Your task to perform on an android device: delete a single message in the gmail app Image 0: 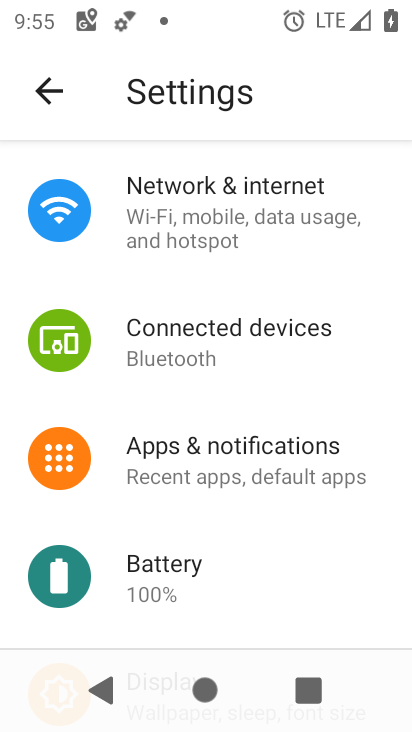
Step 0: press home button
Your task to perform on an android device: delete a single message in the gmail app Image 1: 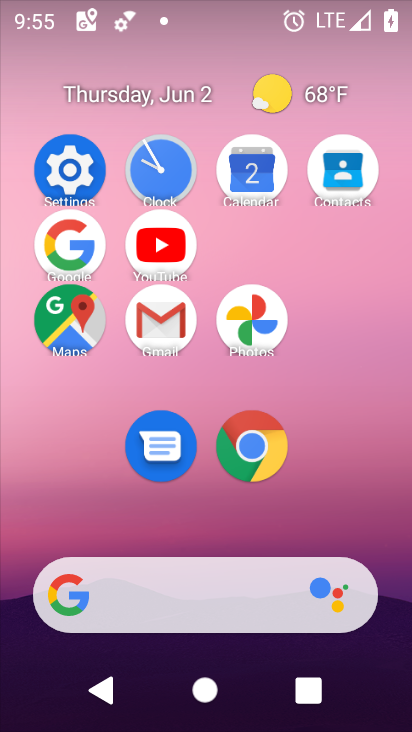
Step 1: click (164, 316)
Your task to perform on an android device: delete a single message in the gmail app Image 2: 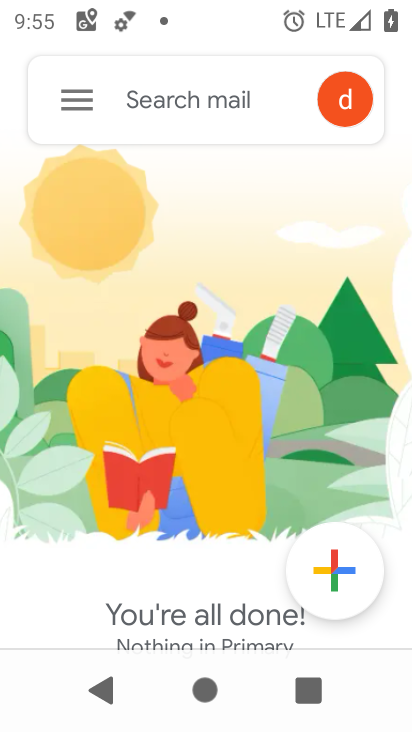
Step 2: click (67, 114)
Your task to perform on an android device: delete a single message in the gmail app Image 3: 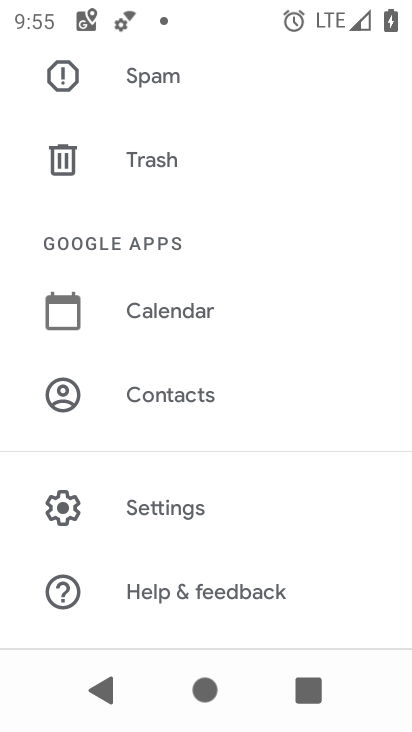
Step 3: drag from (208, 109) to (271, 510)
Your task to perform on an android device: delete a single message in the gmail app Image 4: 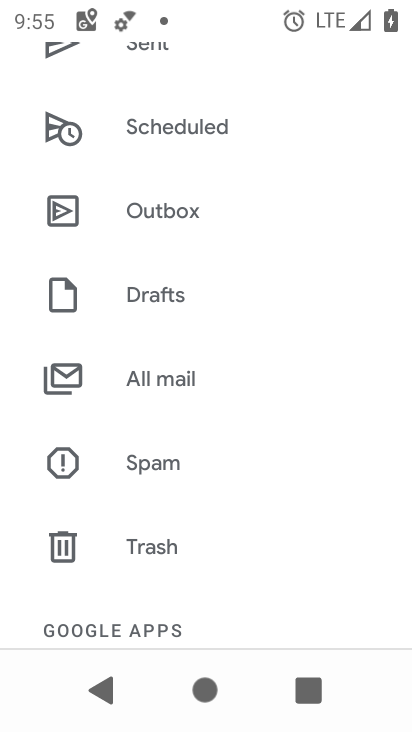
Step 4: drag from (281, 217) to (290, 555)
Your task to perform on an android device: delete a single message in the gmail app Image 5: 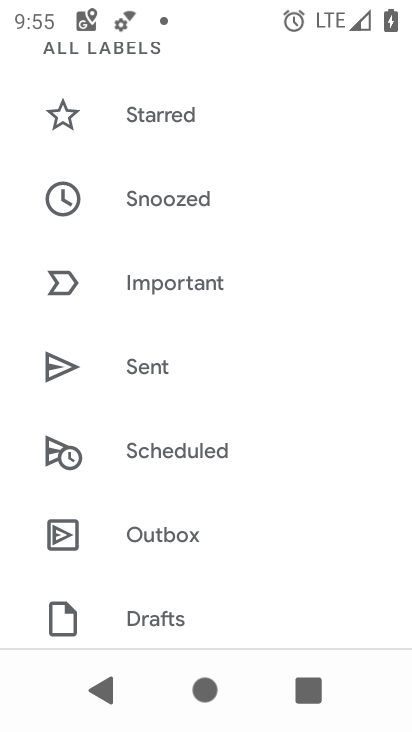
Step 5: drag from (315, 193) to (320, 556)
Your task to perform on an android device: delete a single message in the gmail app Image 6: 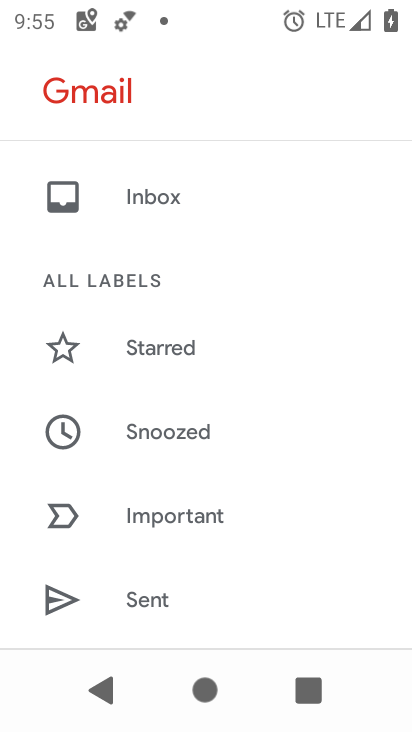
Step 6: drag from (299, 151) to (298, 611)
Your task to perform on an android device: delete a single message in the gmail app Image 7: 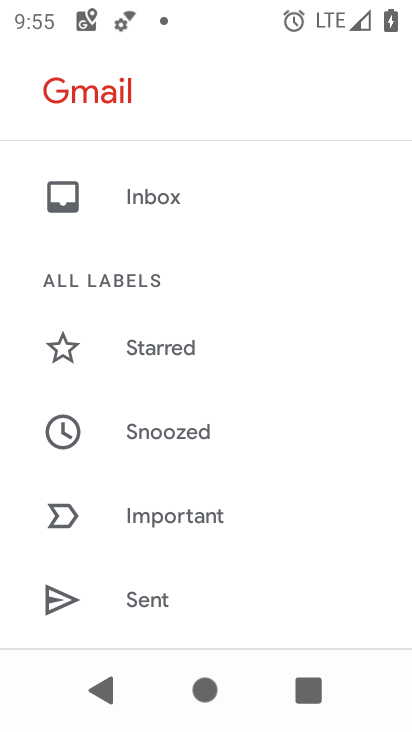
Step 7: drag from (269, 573) to (236, 220)
Your task to perform on an android device: delete a single message in the gmail app Image 8: 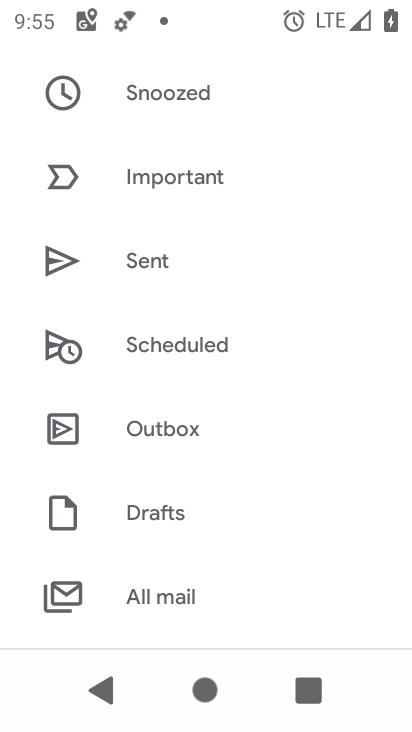
Step 8: click (218, 587)
Your task to perform on an android device: delete a single message in the gmail app Image 9: 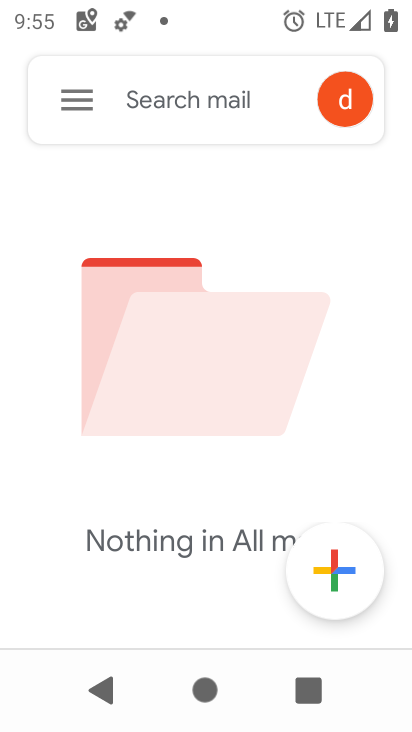
Step 9: task complete